Your task to perform on an android device: Go to accessibility settings Image 0: 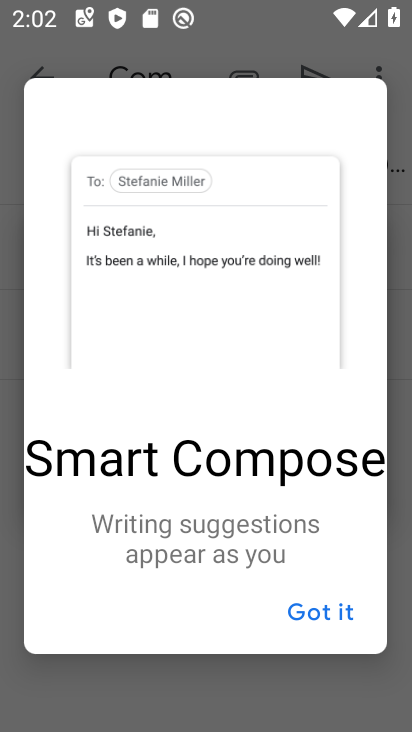
Step 0: press home button
Your task to perform on an android device: Go to accessibility settings Image 1: 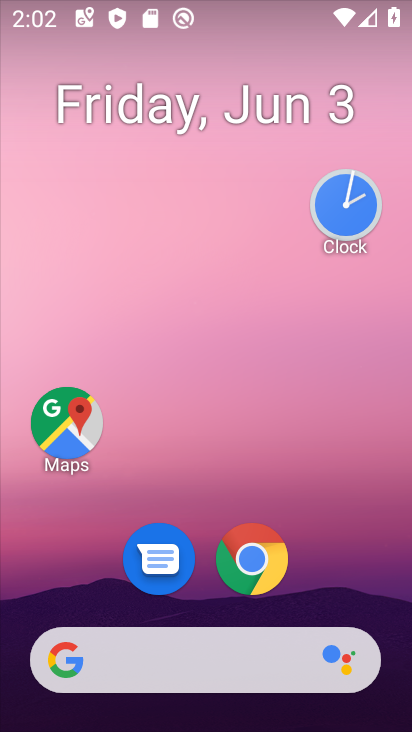
Step 1: drag from (363, 507) to (362, 154)
Your task to perform on an android device: Go to accessibility settings Image 2: 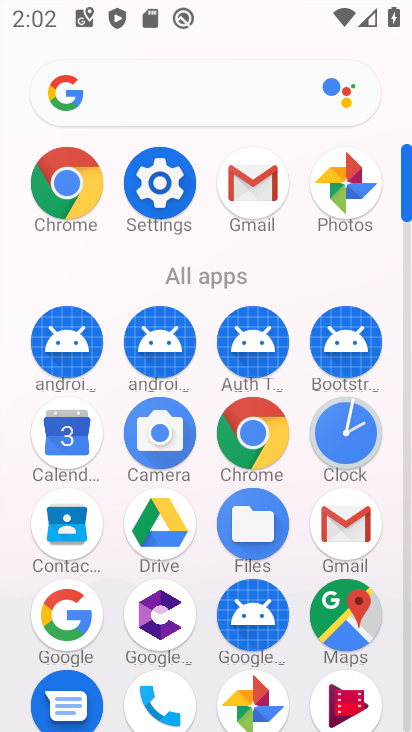
Step 2: click (143, 185)
Your task to perform on an android device: Go to accessibility settings Image 3: 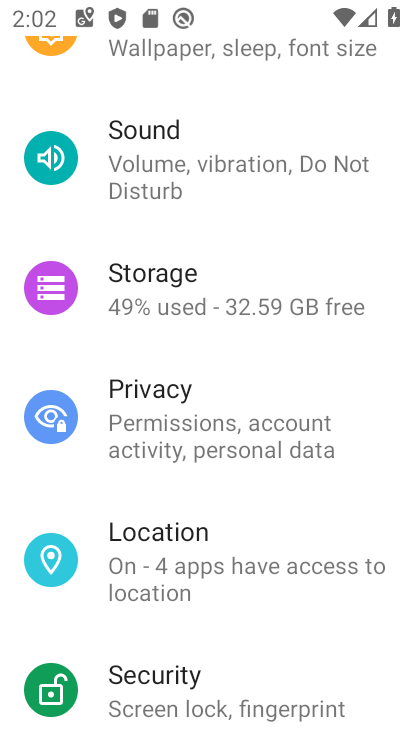
Step 3: drag from (296, 447) to (298, 204)
Your task to perform on an android device: Go to accessibility settings Image 4: 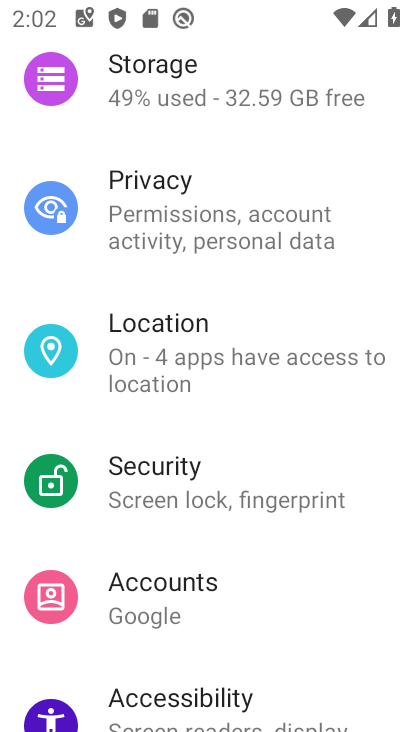
Step 4: click (231, 692)
Your task to perform on an android device: Go to accessibility settings Image 5: 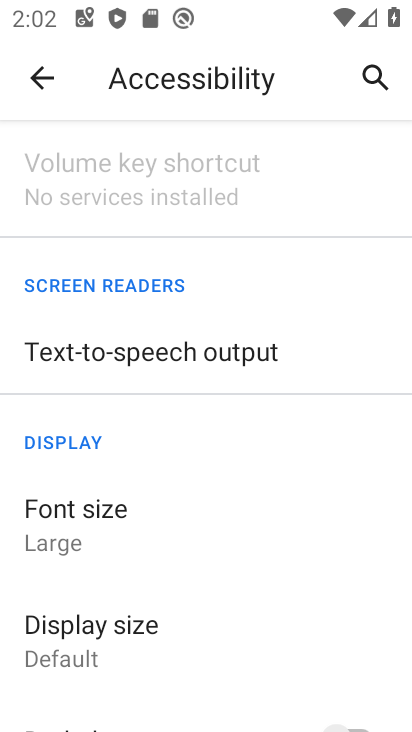
Step 5: task complete